Your task to perform on an android device: search for starred emails in the gmail app Image 0: 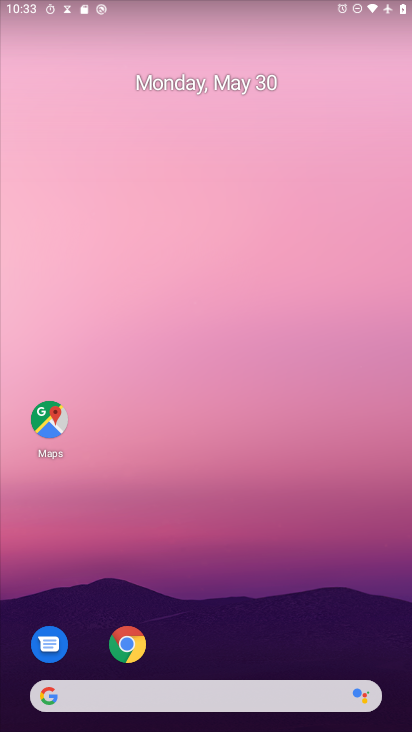
Step 0: drag from (240, 635) to (234, 30)
Your task to perform on an android device: search for starred emails in the gmail app Image 1: 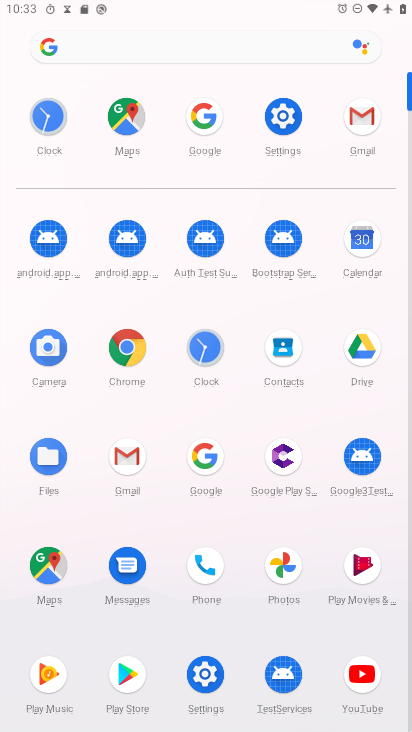
Step 1: click (124, 452)
Your task to perform on an android device: search for starred emails in the gmail app Image 2: 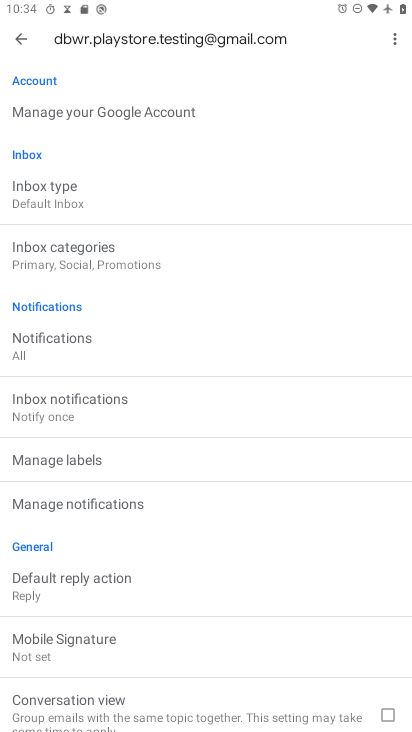
Step 2: press back button
Your task to perform on an android device: search for starred emails in the gmail app Image 3: 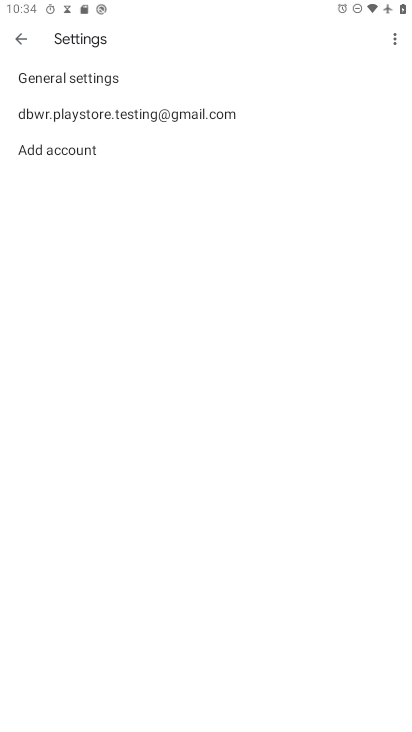
Step 3: press back button
Your task to perform on an android device: search for starred emails in the gmail app Image 4: 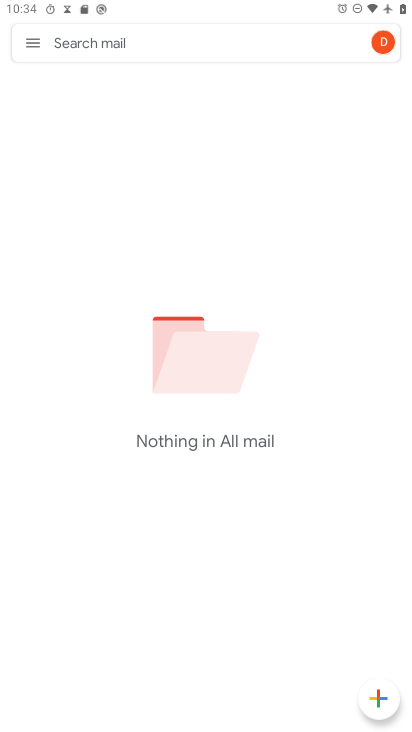
Step 4: click (32, 41)
Your task to perform on an android device: search for starred emails in the gmail app Image 5: 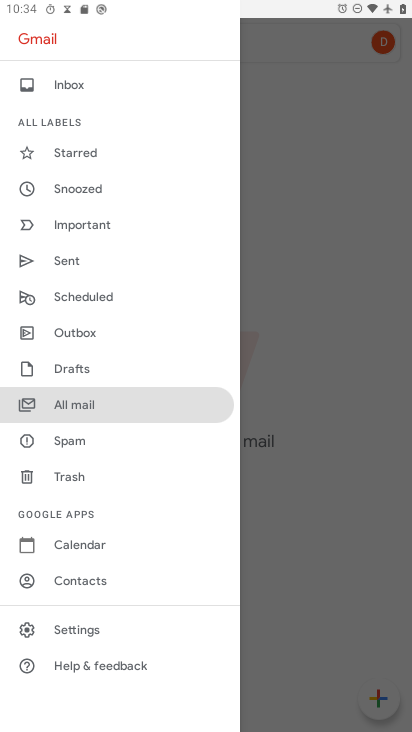
Step 5: click (99, 148)
Your task to perform on an android device: search for starred emails in the gmail app Image 6: 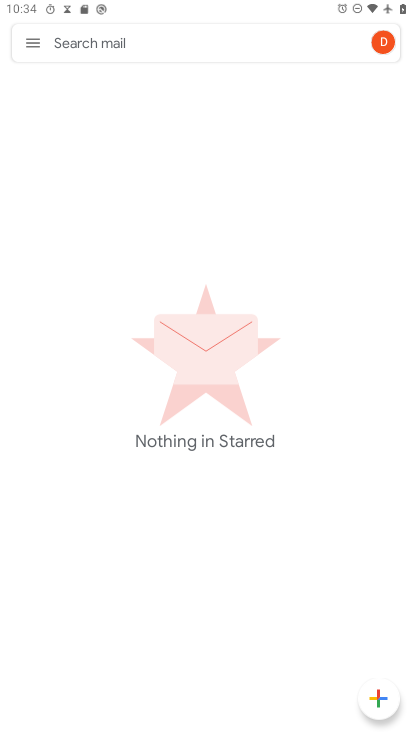
Step 6: task complete